Your task to perform on an android device: Open Google Maps and go to "Timeline" Image 0: 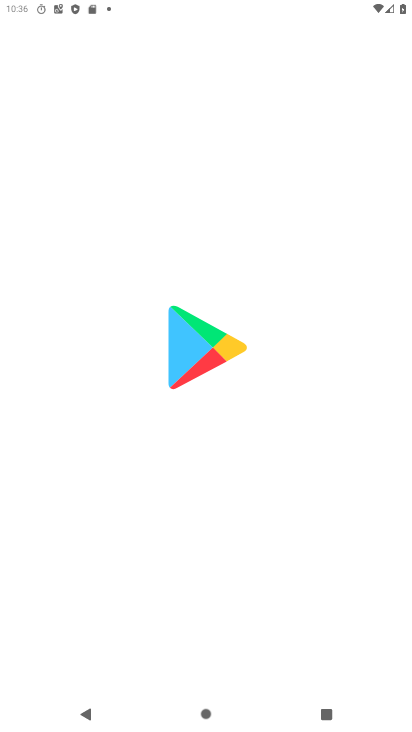
Step 0: drag from (253, 616) to (266, 475)
Your task to perform on an android device: Open Google Maps and go to "Timeline" Image 1: 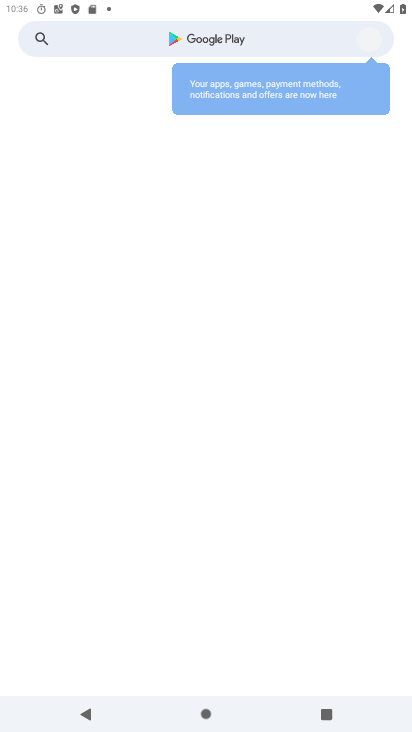
Step 1: press home button
Your task to perform on an android device: Open Google Maps and go to "Timeline" Image 2: 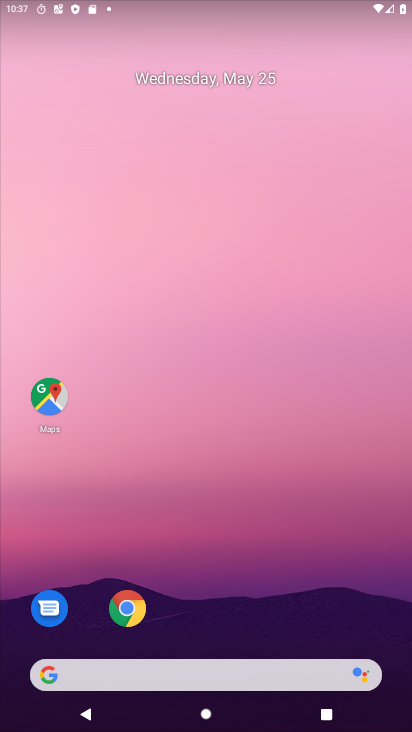
Step 2: drag from (242, 612) to (256, 96)
Your task to perform on an android device: Open Google Maps and go to "Timeline" Image 3: 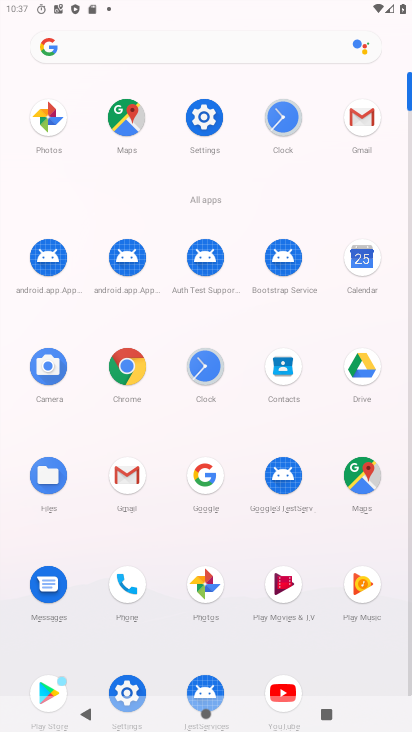
Step 3: click (137, 116)
Your task to perform on an android device: Open Google Maps and go to "Timeline" Image 4: 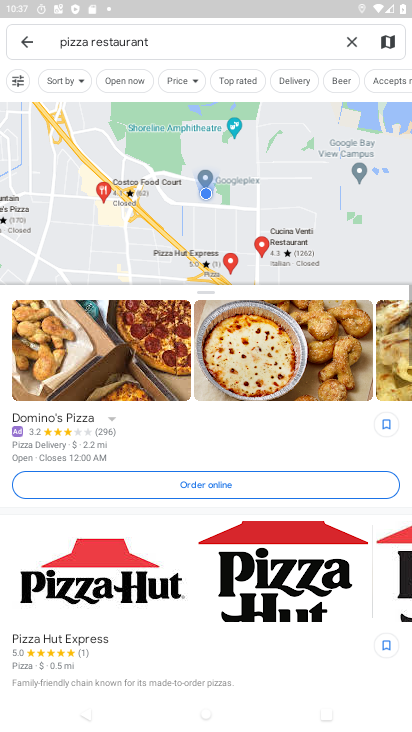
Step 4: click (20, 46)
Your task to perform on an android device: Open Google Maps and go to "Timeline" Image 5: 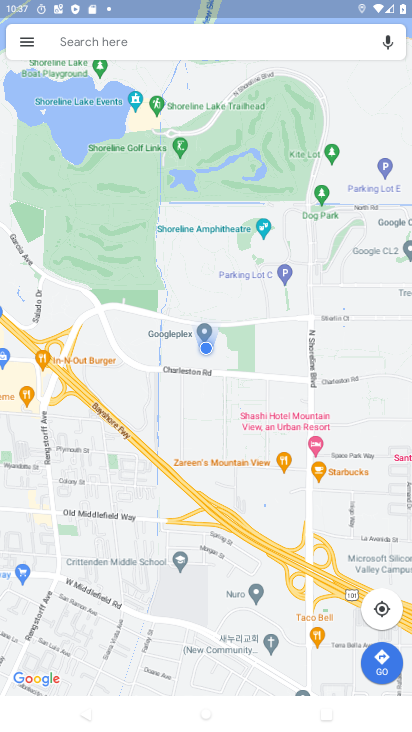
Step 5: click (20, 46)
Your task to perform on an android device: Open Google Maps and go to "Timeline" Image 6: 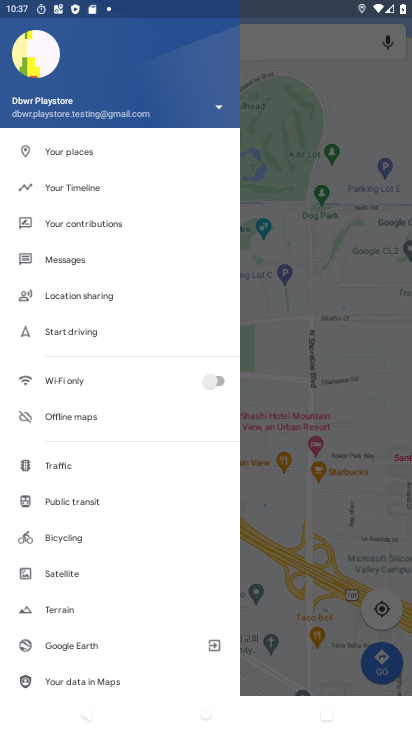
Step 6: click (74, 178)
Your task to perform on an android device: Open Google Maps and go to "Timeline" Image 7: 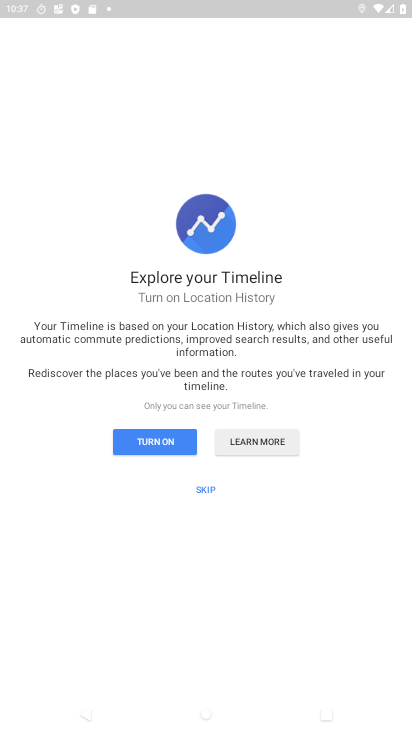
Step 7: click (209, 490)
Your task to perform on an android device: Open Google Maps and go to "Timeline" Image 8: 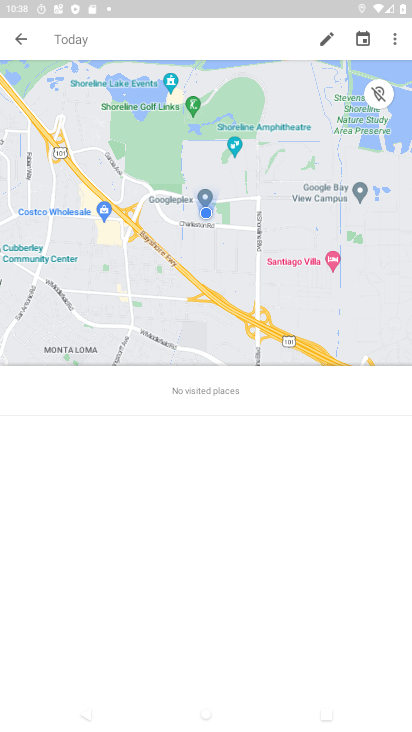
Step 8: task complete